Your task to perform on an android device: clear all cookies in the chrome app Image 0: 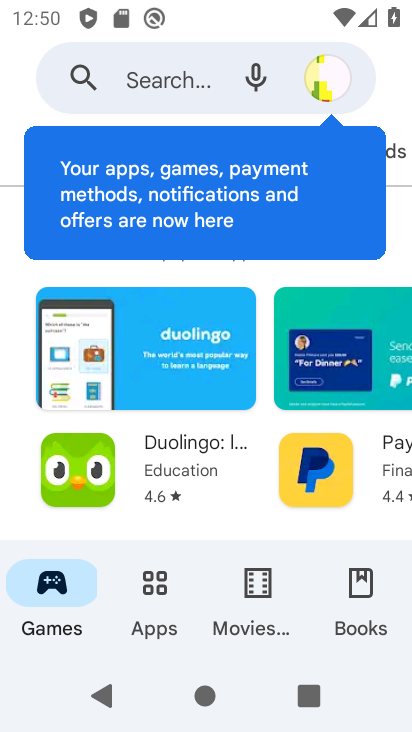
Step 0: press home button
Your task to perform on an android device: clear all cookies in the chrome app Image 1: 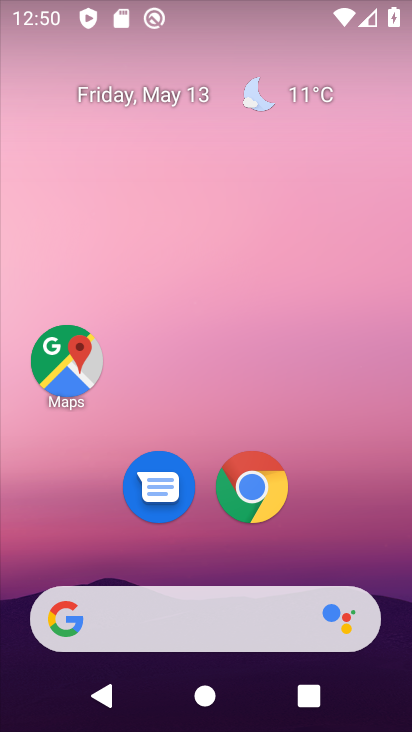
Step 1: click (276, 510)
Your task to perform on an android device: clear all cookies in the chrome app Image 2: 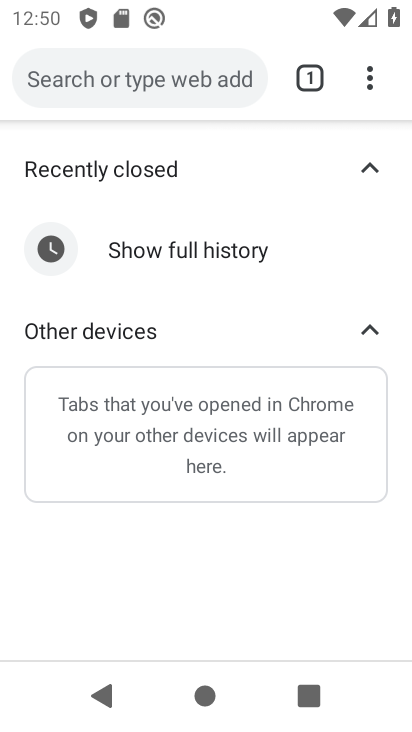
Step 2: task complete